Your task to perform on an android device: Open sound settings Image 0: 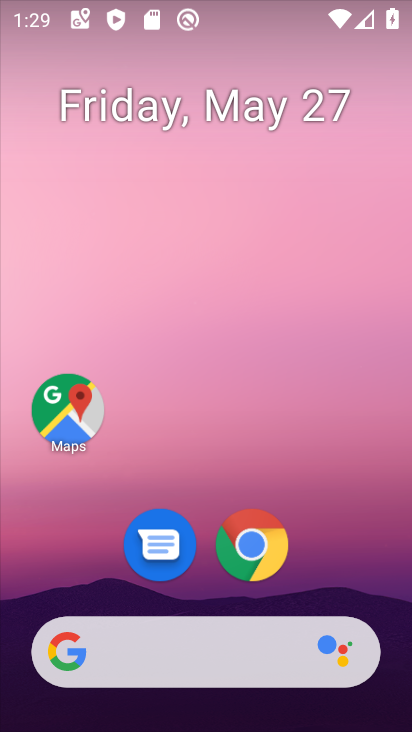
Step 0: drag from (361, 525) to (171, 18)
Your task to perform on an android device: Open sound settings Image 1: 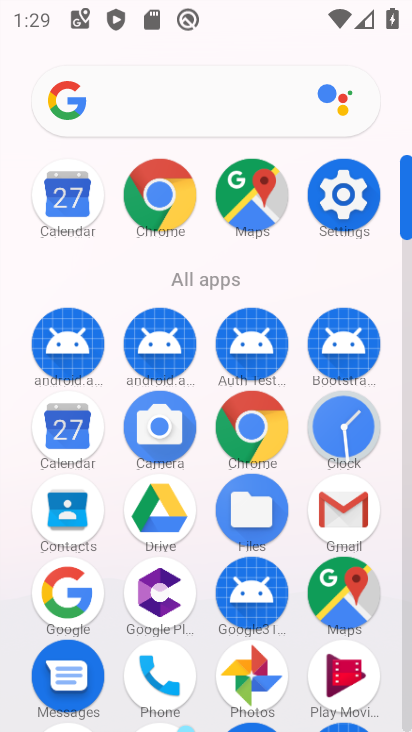
Step 1: click (355, 189)
Your task to perform on an android device: Open sound settings Image 2: 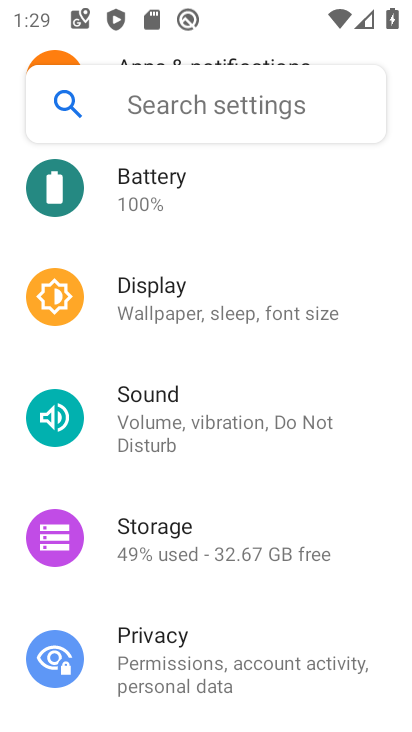
Step 2: click (183, 427)
Your task to perform on an android device: Open sound settings Image 3: 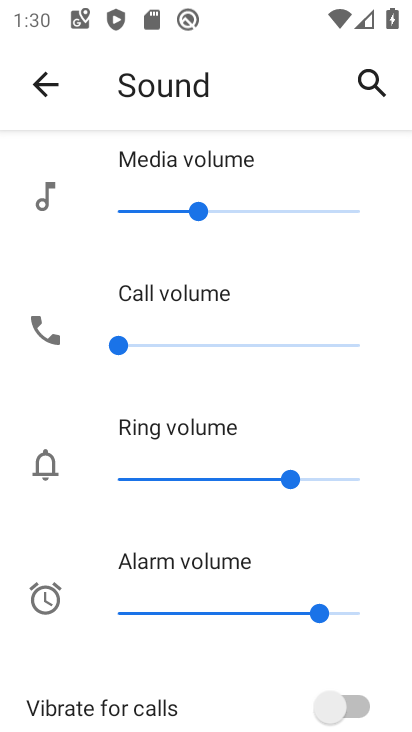
Step 3: task complete